Your task to perform on an android device: toggle sleep mode Image 0: 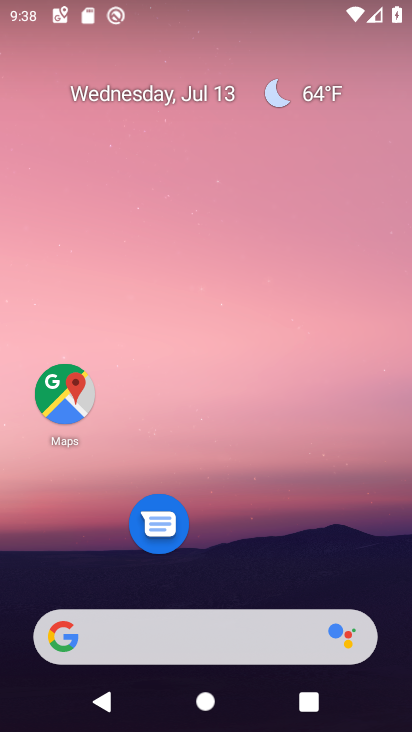
Step 0: drag from (250, 571) to (239, 11)
Your task to perform on an android device: toggle sleep mode Image 1: 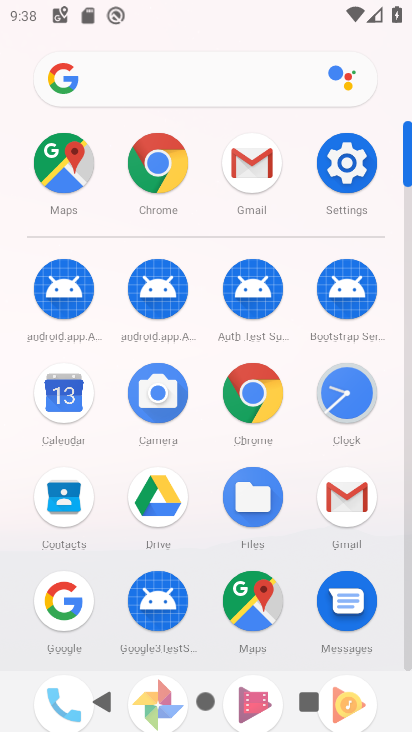
Step 1: click (351, 157)
Your task to perform on an android device: toggle sleep mode Image 2: 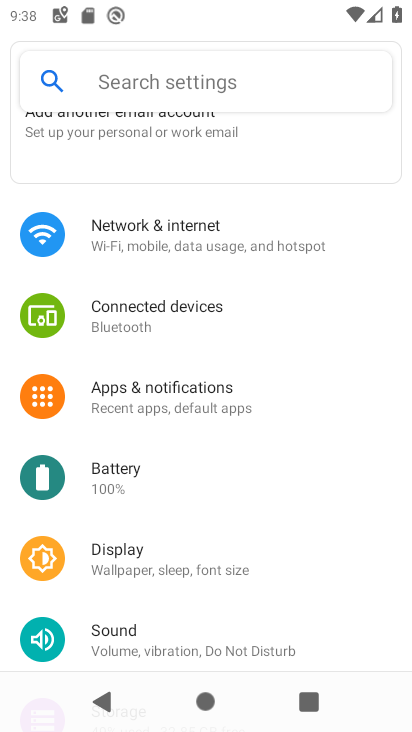
Step 2: task complete